Your task to perform on an android device: check the backup settings in the google photos Image 0: 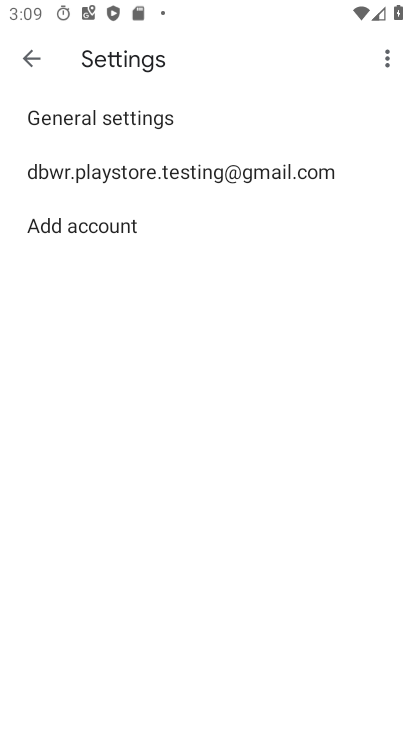
Step 0: press home button
Your task to perform on an android device: check the backup settings in the google photos Image 1: 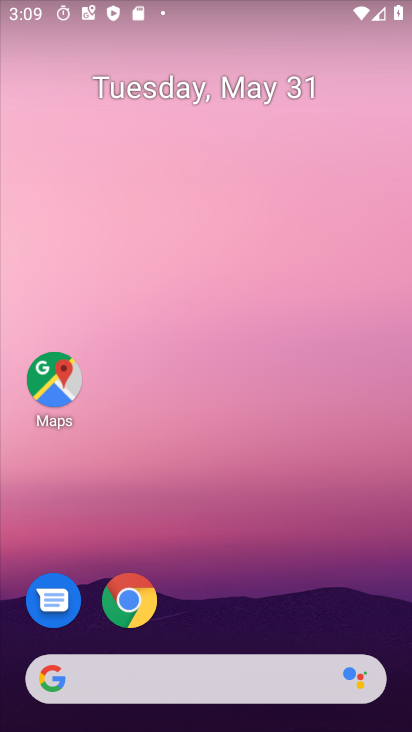
Step 1: drag from (221, 618) to (318, 175)
Your task to perform on an android device: check the backup settings in the google photos Image 2: 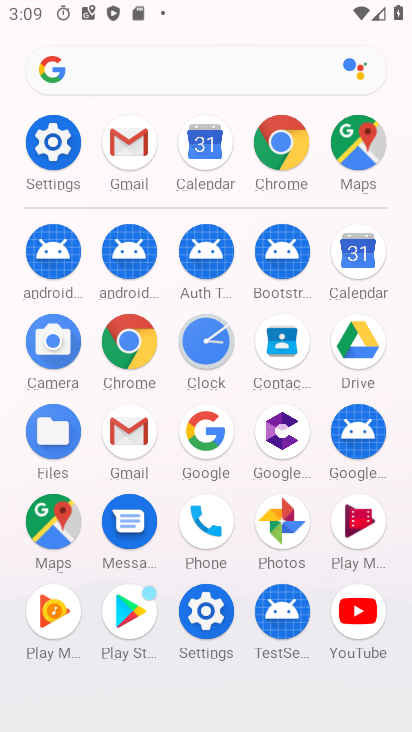
Step 2: click (285, 516)
Your task to perform on an android device: check the backup settings in the google photos Image 3: 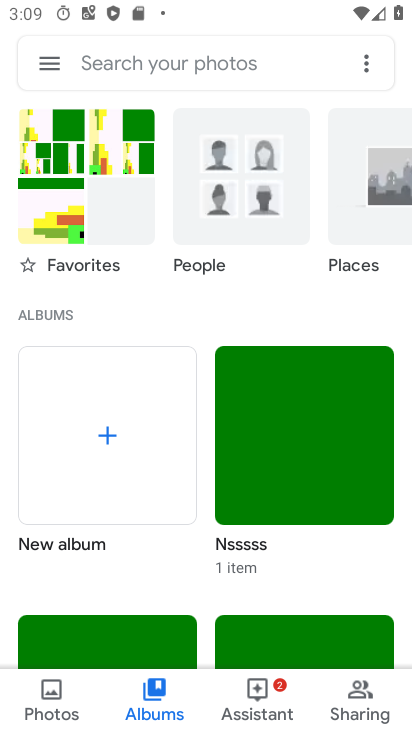
Step 3: click (45, 68)
Your task to perform on an android device: check the backup settings in the google photos Image 4: 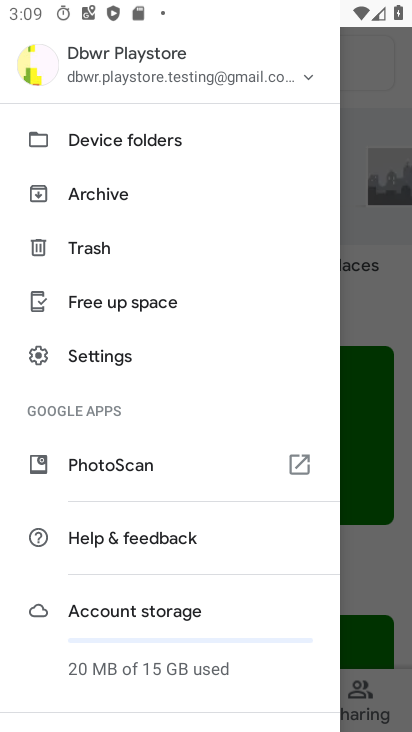
Step 4: click (139, 351)
Your task to perform on an android device: check the backup settings in the google photos Image 5: 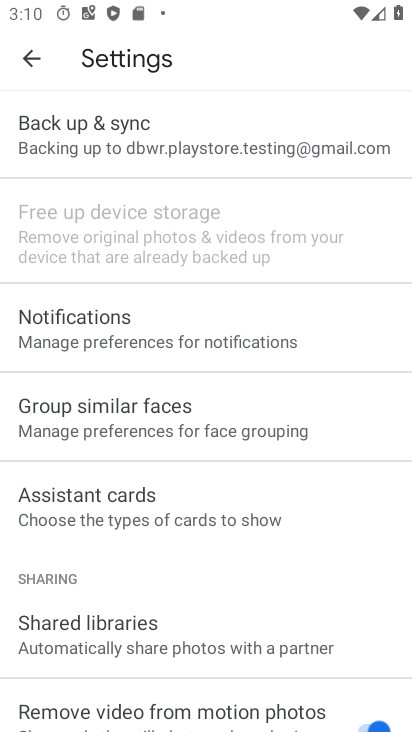
Step 5: click (129, 136)
Your task to perform on an android device: check the backup settings in the google photos Image 6: 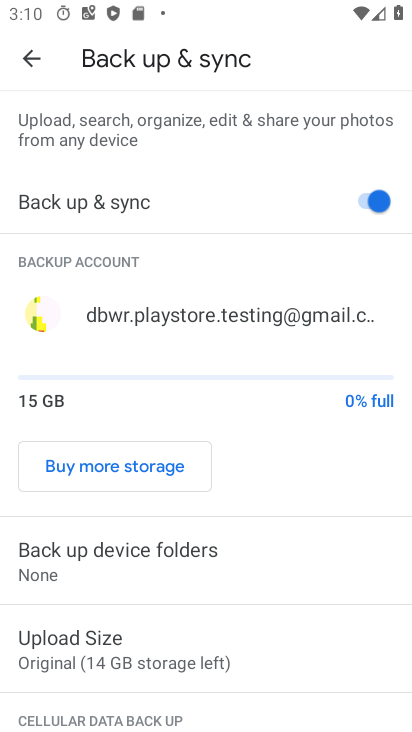
Step 6: task complete